Your task to perform on an android device: Check the weather Image 0: 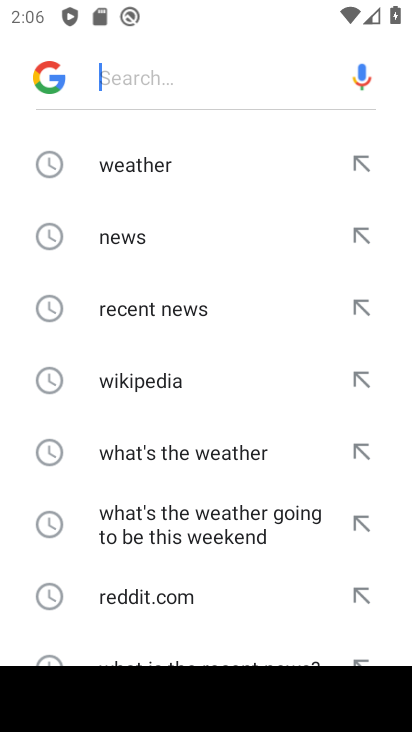
Step 0: press home button
Your task to perform on an android device: Check the weather Image 1: 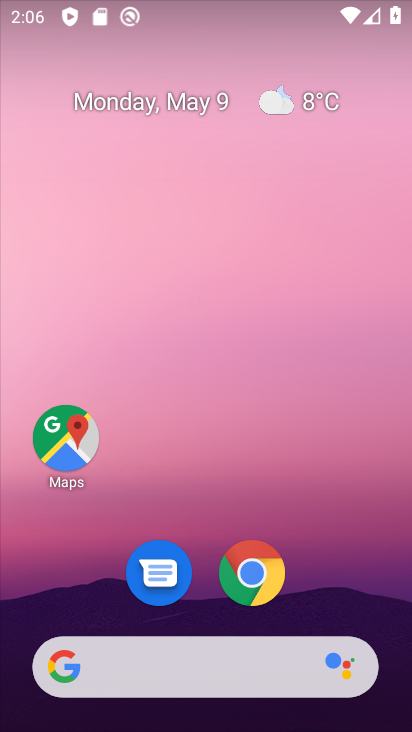
Step 1: drag from (143, 692) to (349, 35)
Your task to perform on an android device: Check the weather Image 2: 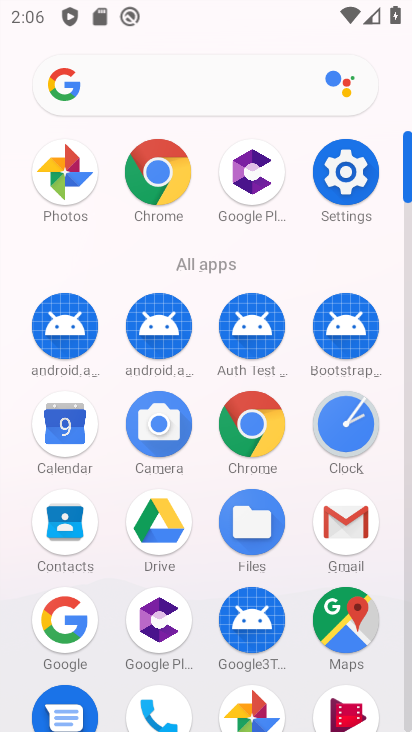
Step 2: click (59, 624)
Your task to perform on an android device: Check the weather Image 3: 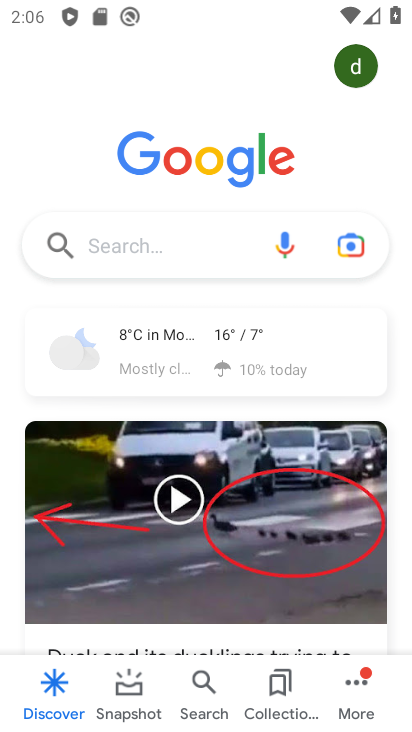
Step 3: click (182, 332)
Your task to perform on an android device: Check the weather Image 4: 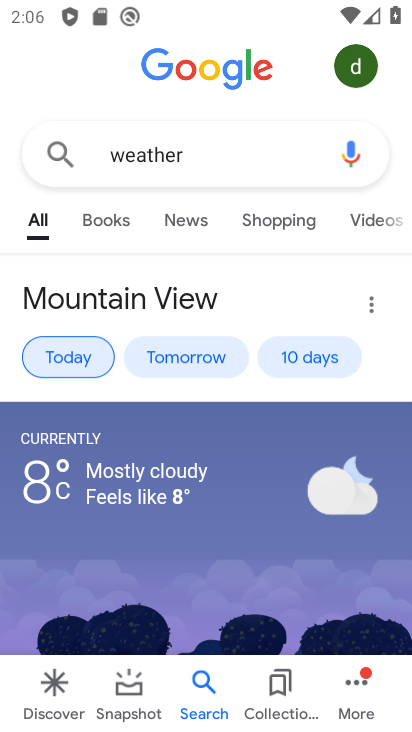
Step 4: task complete